Your task to perform on an android device: open wifi settings Image 0: 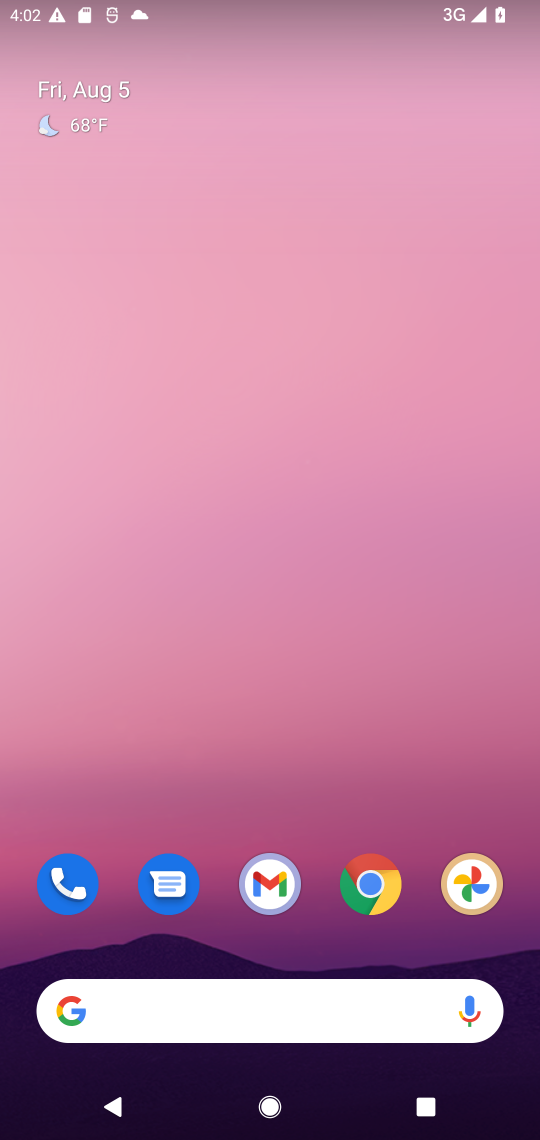
Step 0: drag from (433, 884) to (313, 197)
Your task to perform on an android device: open wifi settings Image 1: 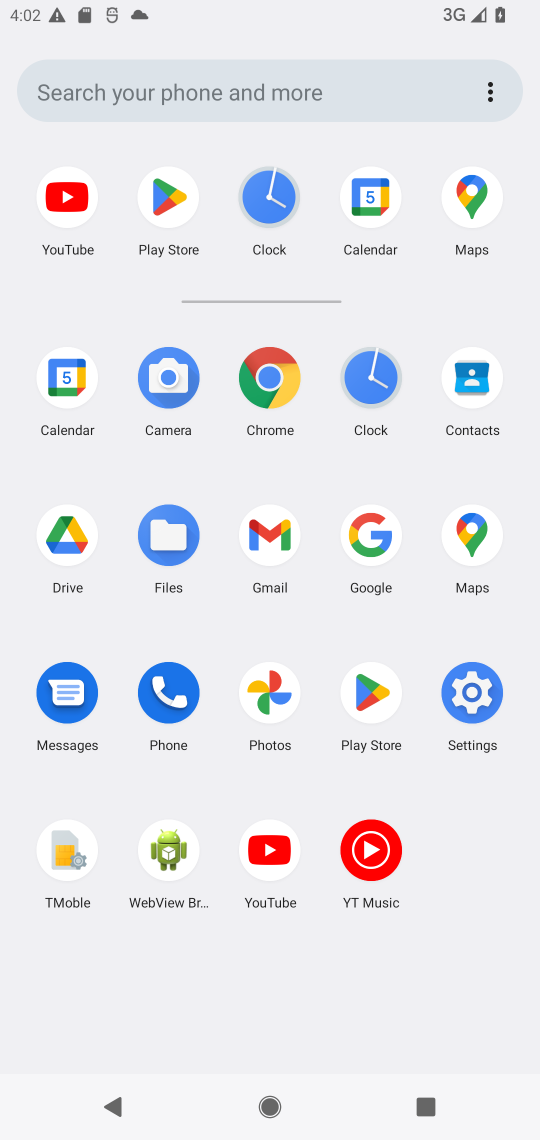
Step 1: click (481, 690)
Your task to perform on an android device: open wifi settings Image 2: 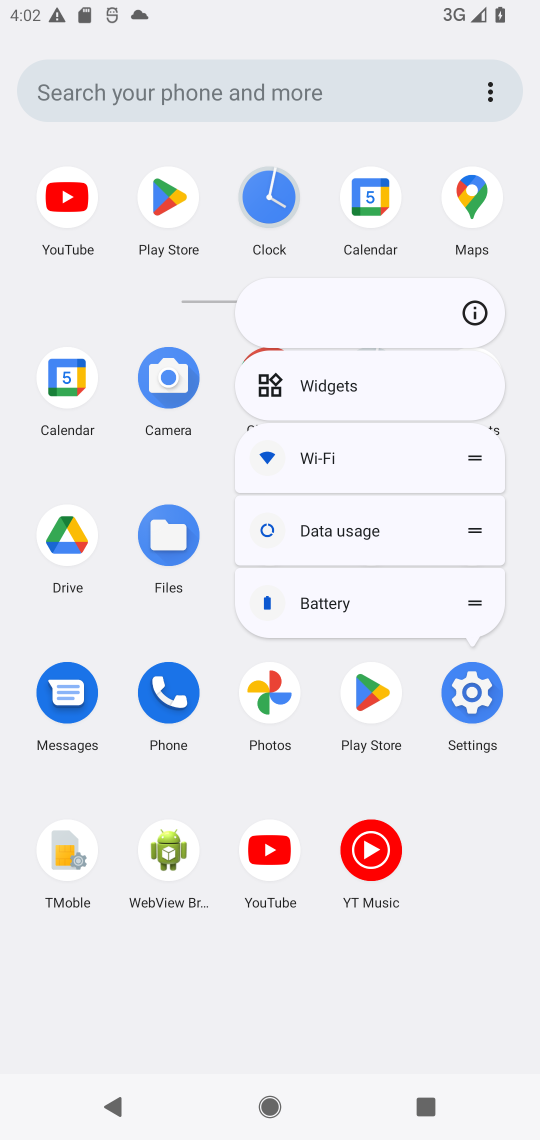
Step 2: click (481, 690)
Your task to perform on an android device: open wifi settings Image 3: 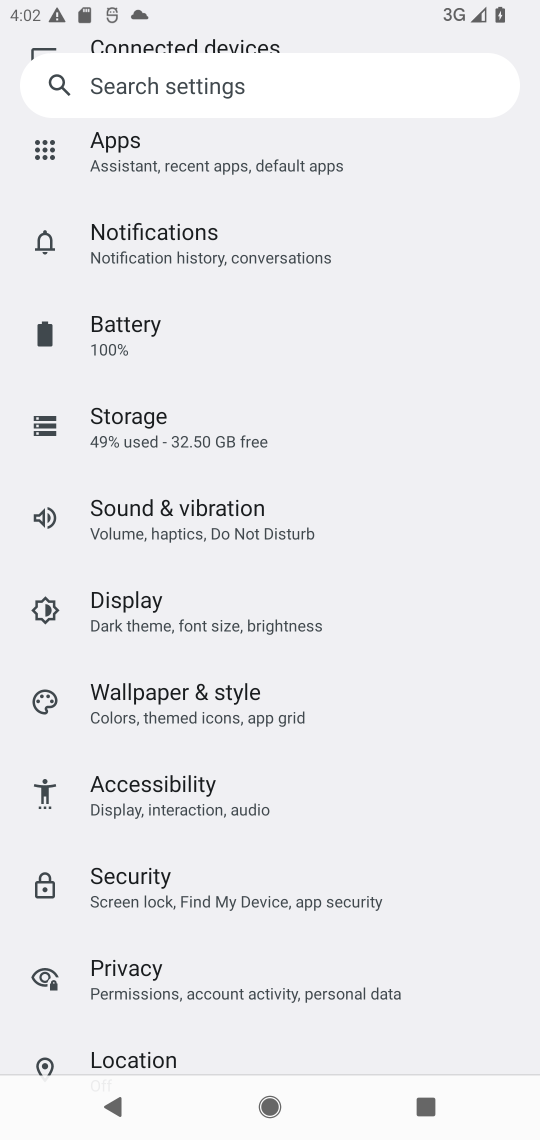
Step 3: drag from (281, 258) to (392, 1077)
Your task to perform on an android device: open wifi settings Image 4: 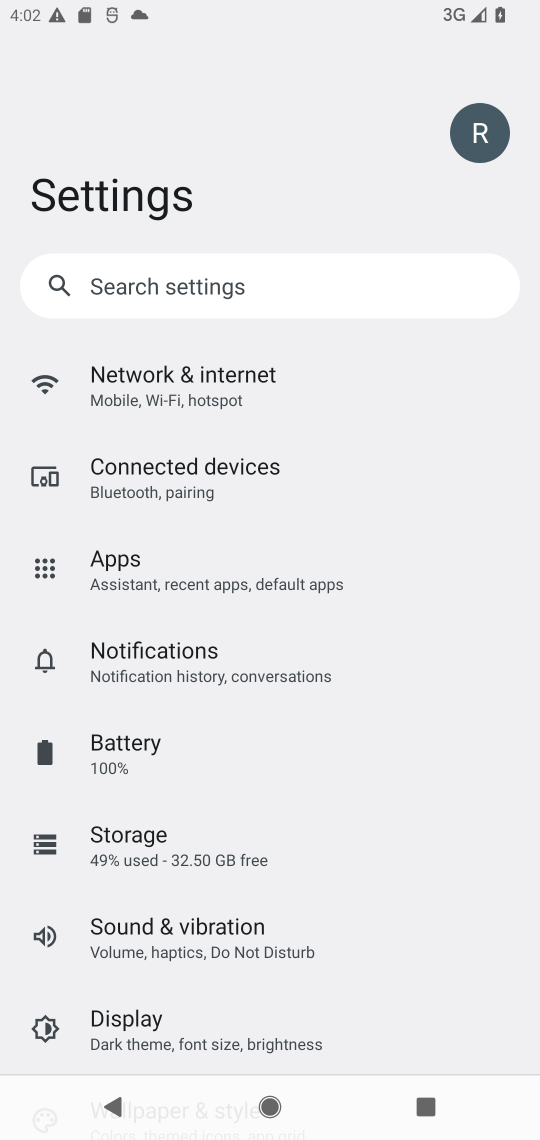
Step 4: click (223, 416)
Your task to perform on an android device: open wifi settings Image 5: 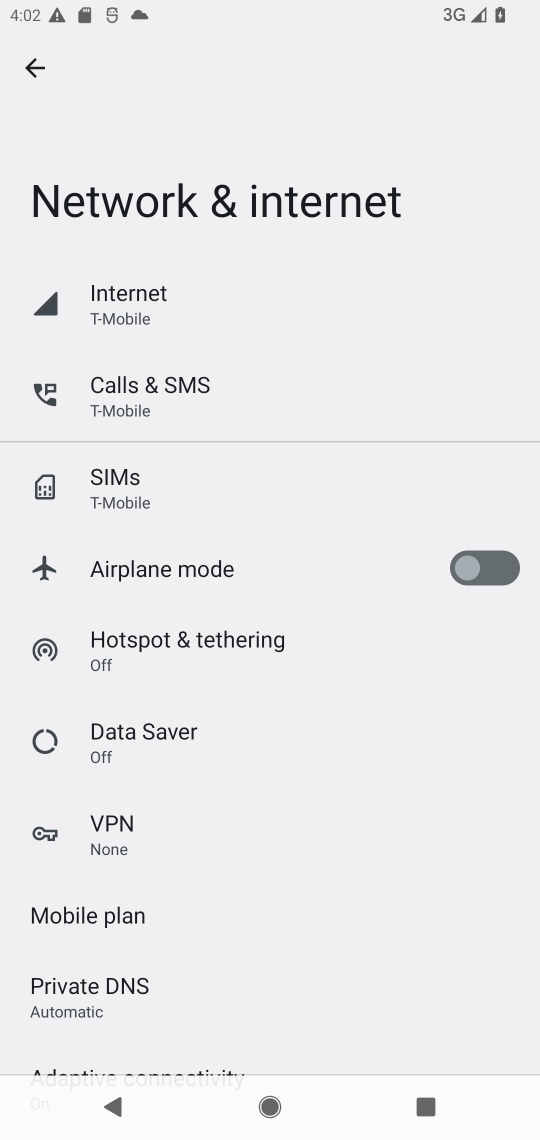
Step 5: task complete